Your task to perform on an android device: refresh tabs in the chrome app Image 0: 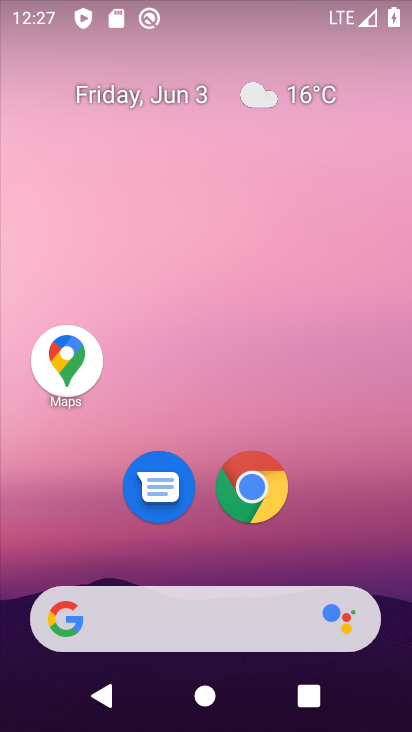
Step 0: click (280, 502)
Your task to perform on an android device: refresh tabs in the chrome app Image 1: 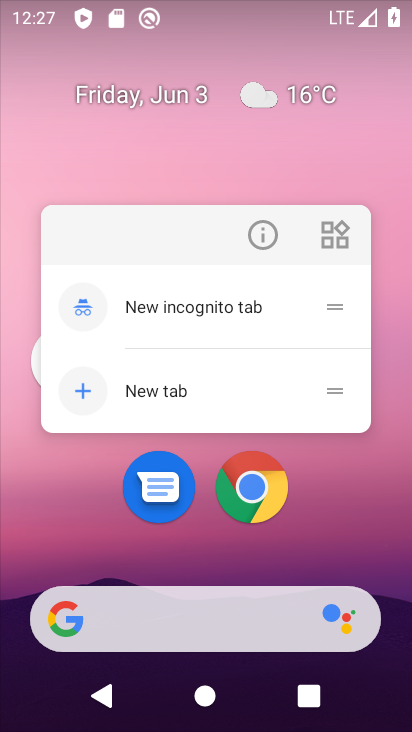
Step 1: click (261, 490)
Your task to perform on an android device: refresh tabs in the chrome app Image 2: 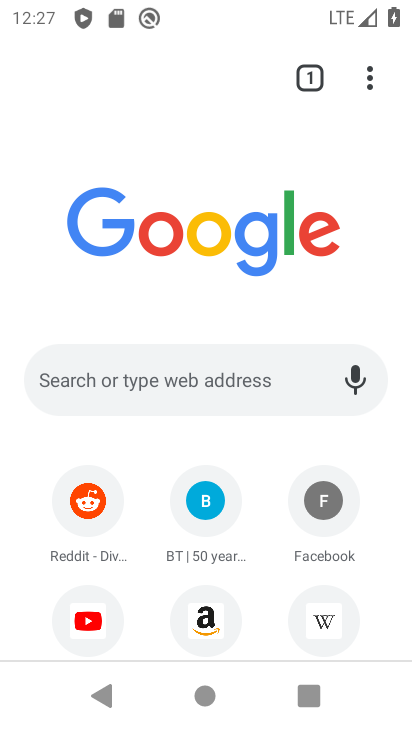
Step 2: click (370, 65)
Your task to perform on an android device: refresh tabs in the chrome app Image 3: 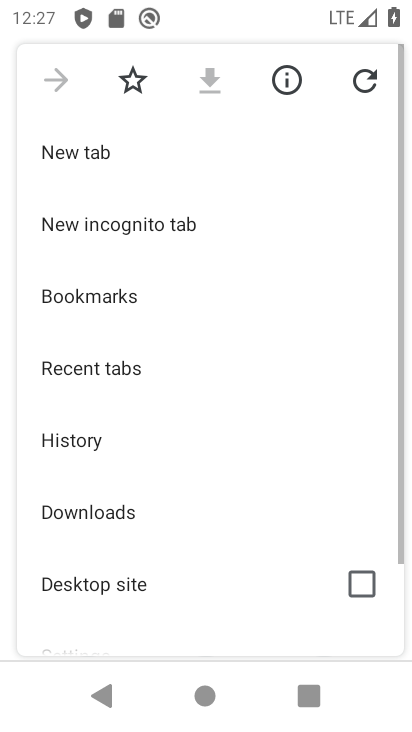
Step 3: click (371, 77)
Your task to perform on an android device: refresh tabs in the chrome app Image 4: 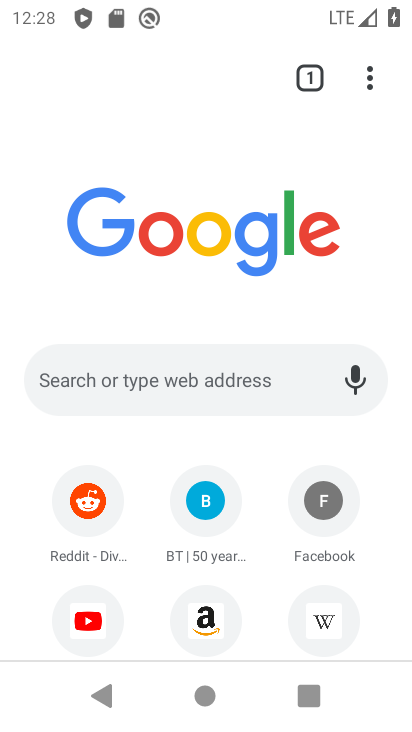
Step 4: click (362, 79)
Your task to perform on an android device: refresh tabs in the chrome app Image 5: 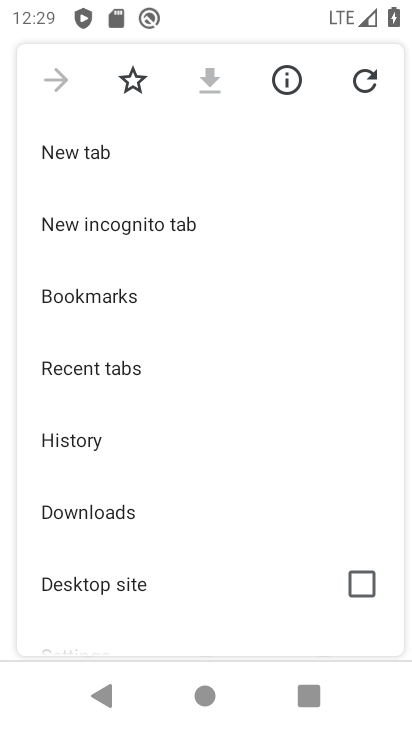
Step 5: click (360, 73)
Your task to perform on an android device: refresh tabs in the chrome app Image 6: 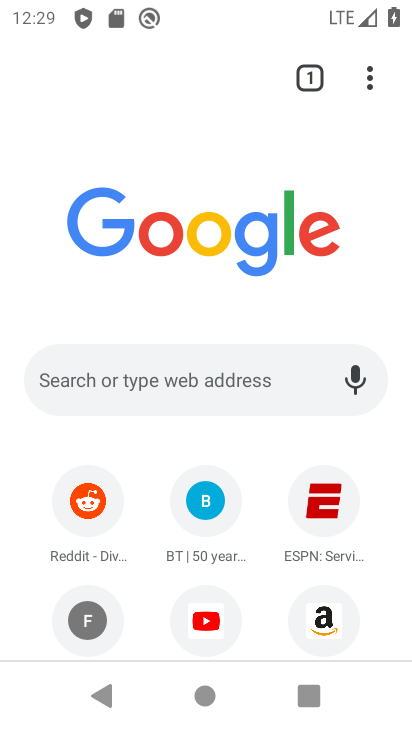
Step 6: task complete